Your task to perform on an android device: Search for Mexican restaurants on Maps Image 0: 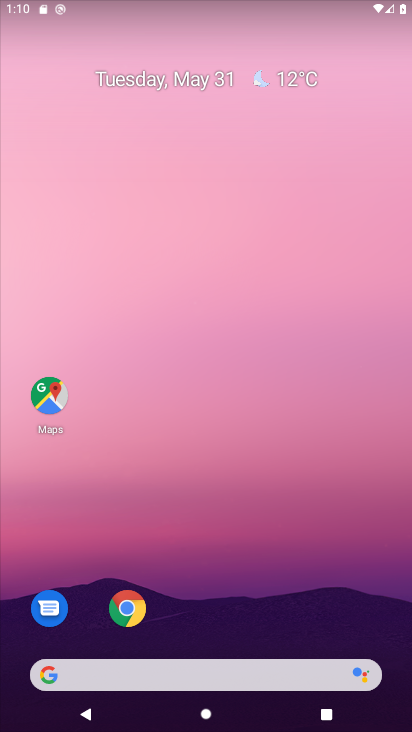
Step 0: drag from (293, 554) to (249, 172)
Your task to perform on an android device: Search for Mexican restaurants on Maps Image 1: 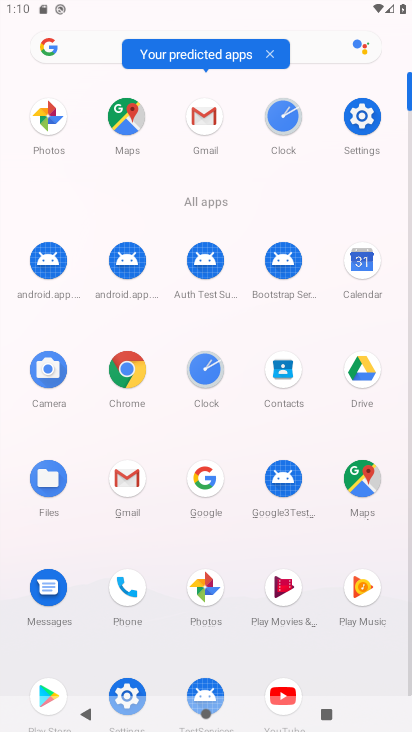
Step 1: click (365, 492)
Your task to perform on an android device: Search for Mexican restaurants on Maps Image 2: 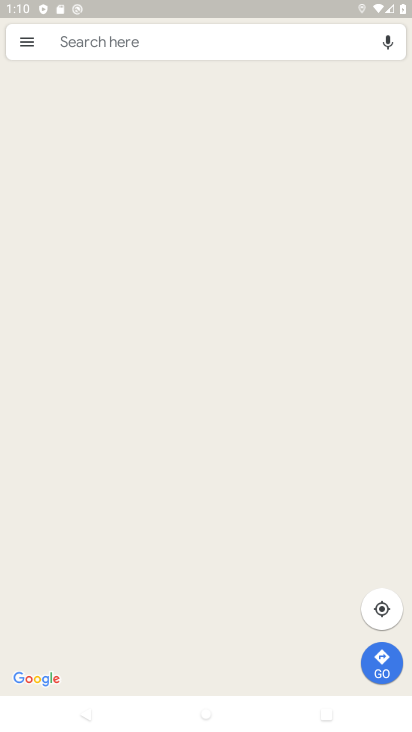
Step 2: click (128, 22)
Your task to perform on an android device: Search for Mexican restaurants on Maps Image 3: 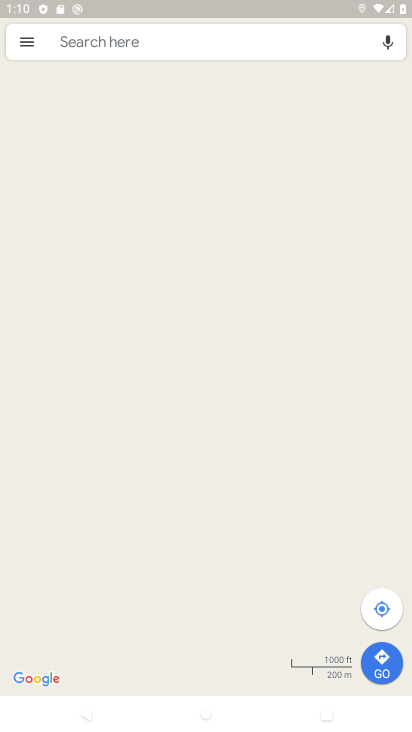
Step 3: click (123, 37)
Your task to perform on an android device: Search for Mexican restaurants on Maps Image 4: 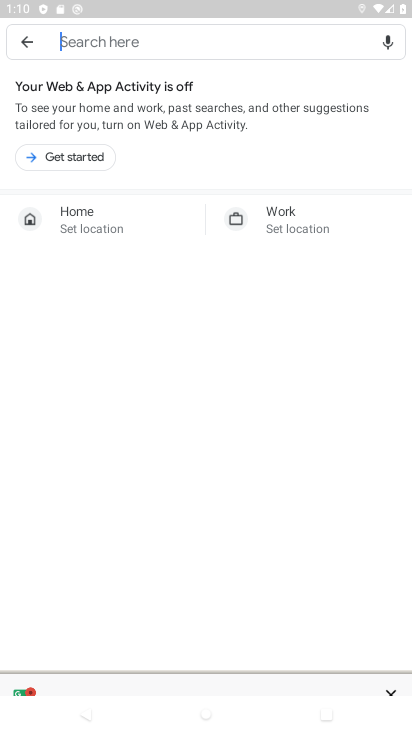
Step 4: click (122, 37)
Your task to perform on an android device: Search for Mexican restaurants on Maps Image 5: 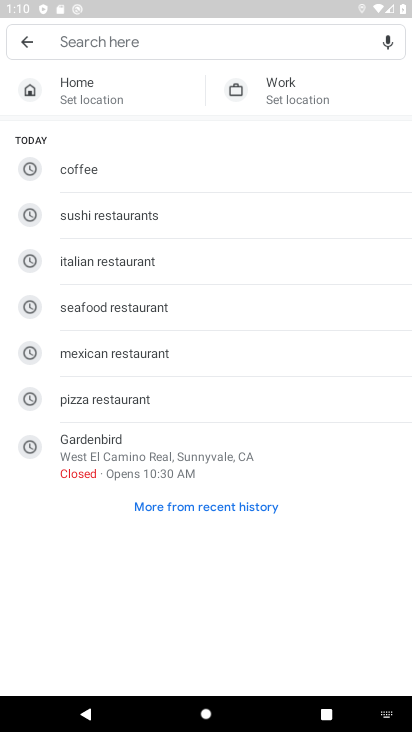
Step 5: type "mexican restaurant s"
Your task to perform on an android device: Search for Mexican restaurants on Maps Image 6: 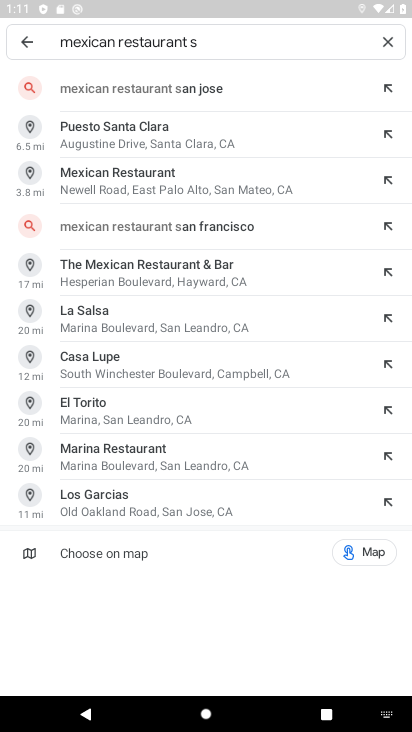
Step 6: click (13, 43)
Your task to perform on an android device: Search for Mexican restaurants on Maps Image 7: 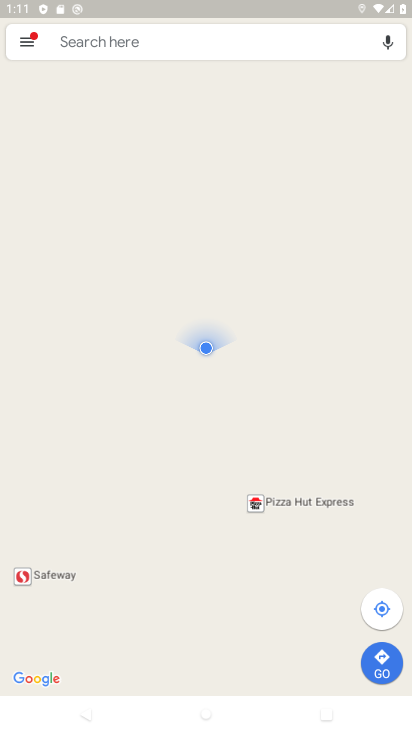
Step 7: click (229, 40)
Your task to perform on an android device: Search for Mexican restaurants on Maps Image 8: 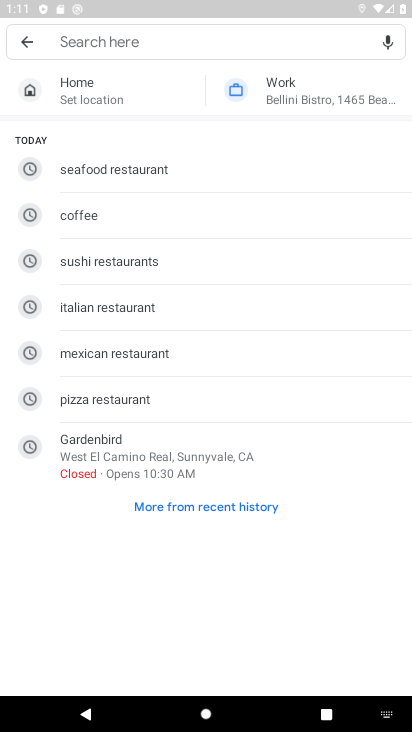
Step 8: click (232, 361)
Your task to perform on an android device: Search for Mexican restaurants on Maps Image 9: 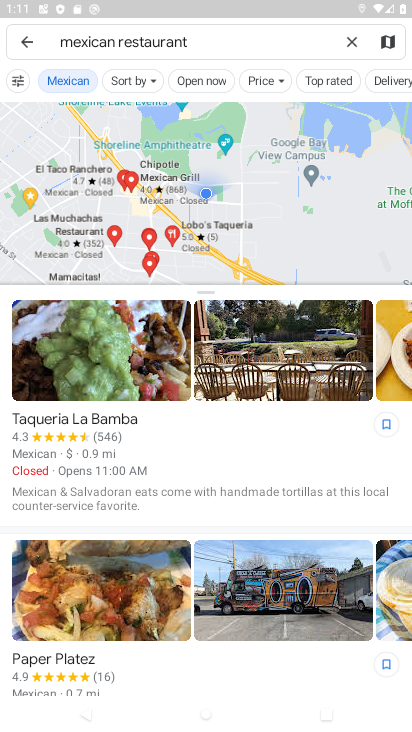
Step 9: task complete